Your task to perform on an android device: turn off airplane mode Image 0: 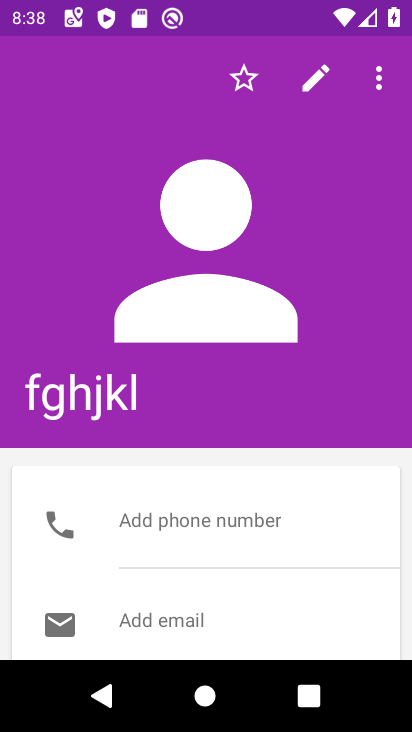
Step 0: press home button
Your task to perform on an android device: turn off airplane mode Image 1: 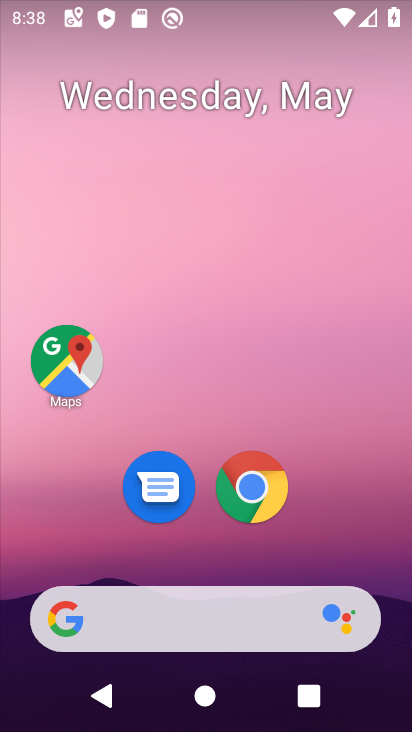
Step 1: task complete